Your task to perform on an android device: Go to calendar. Show me events next week Image 0: 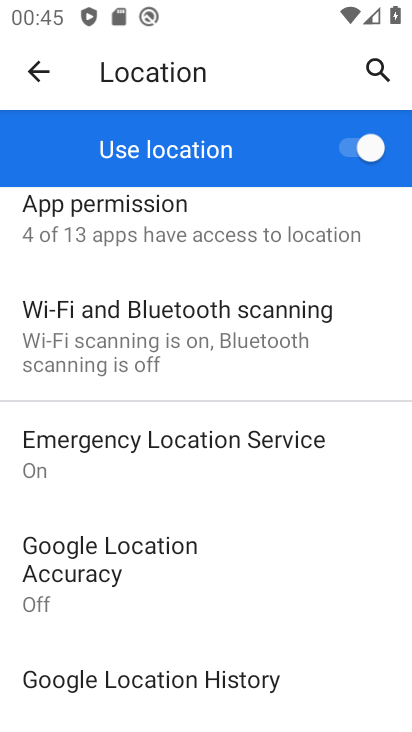
Step 0: press home button
Your task to perform on an android device: Go to calendar. Show me events next week Image 1: 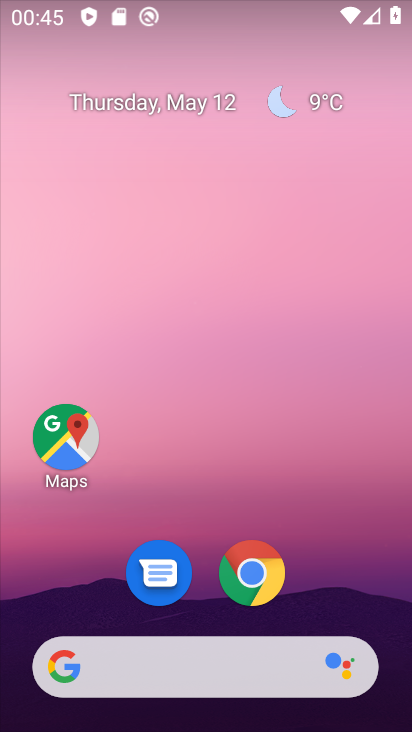
Step 1: drag from (218, 606) to (264, 1)
Your task to perform on an android device: Go to calendar. Show me events next week Image 2: 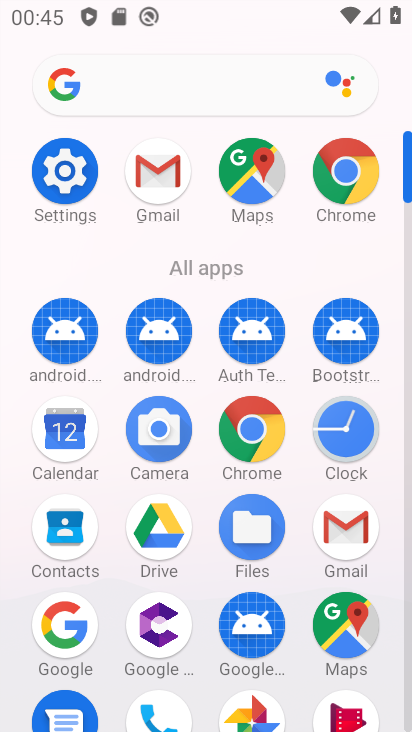
Step 2: click (82, 446)
Your task to perform on an android device: Go to calendar. Show me events next week Image 3: 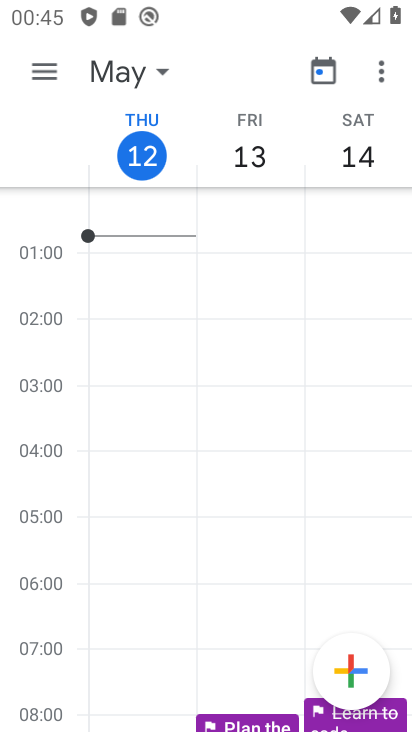
Step 3: click (59, 73)
Your task to perform on an android device: Go to calendar. Show me events next week Image 4: 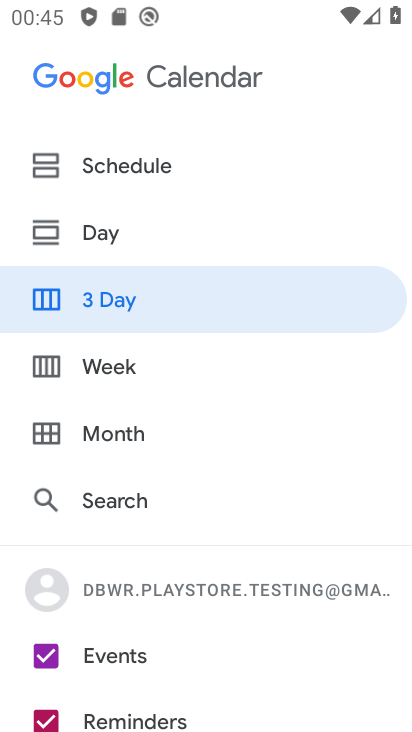
Step 4: click (130, 378)
Your task to perform on an android device: Go to calendar. Show me events next week Image 5: 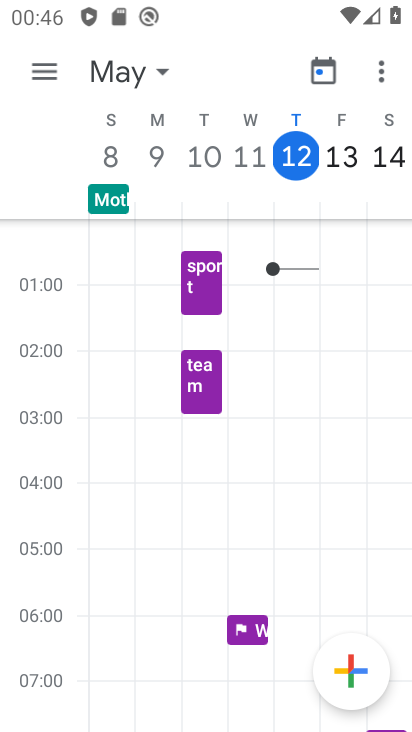
Step 5: drag from (362, 190) to (63, 170)
Your task to perform on an android device: Go to calendar. Show me events next week Image 6: 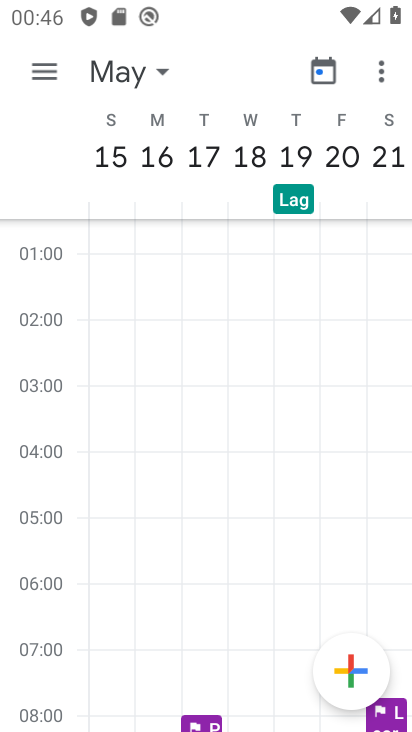
Step 6: click (47, 74)
Your task to perform on an android device: Go to calendar. Show me events next week Image 7: 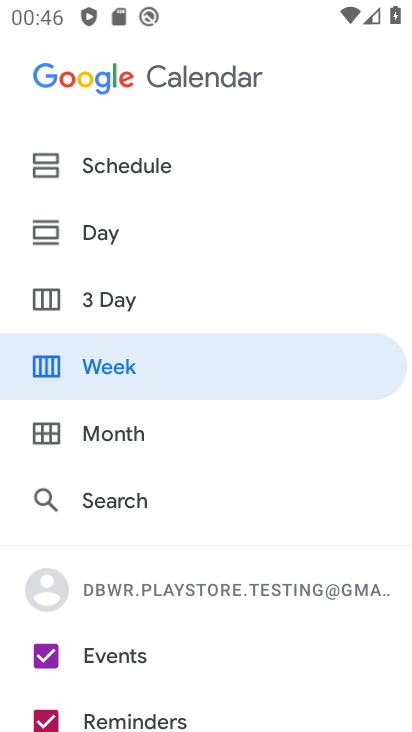
Step 7: task complete